Your task to perform on an android device: What is the news today? Image 0: 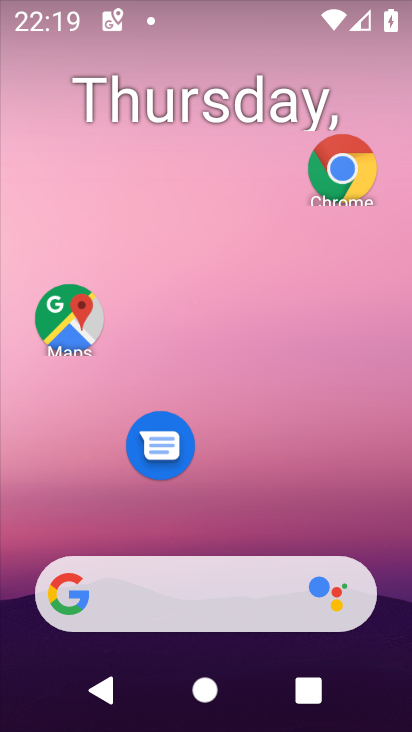
Step 0: drag from (207, 504) to (250, 85)
Your task to perform on an android device: What is the news today? Image 1: 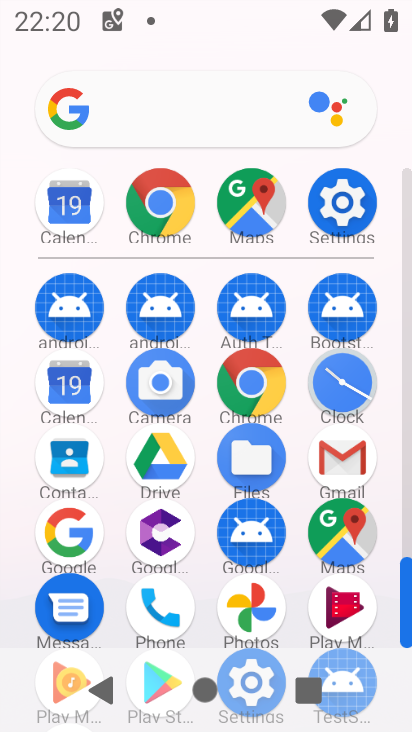
Step 1: click (212, 96)
Your task to perform on an android device: What is the news today? Image 2: 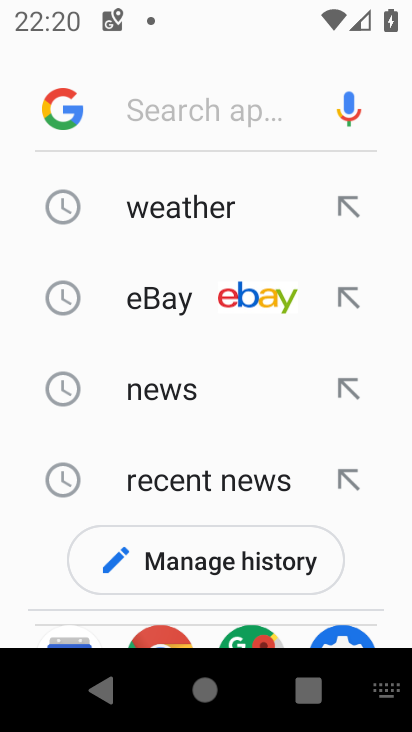
Step 2: drag from (222, 471) to (259, 74)
Your task to perform on an android device: What is the news today? Image 3: 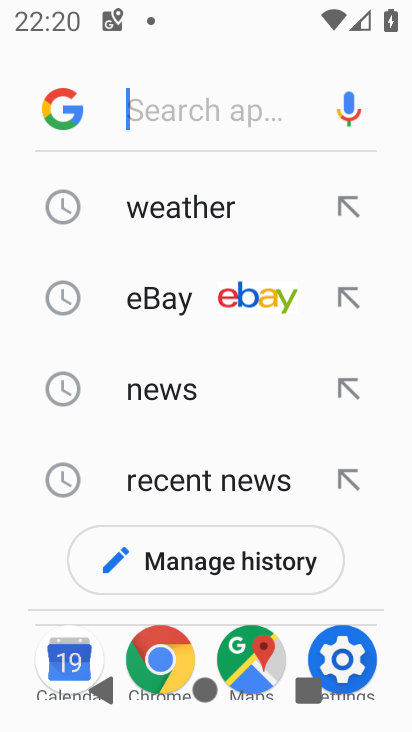
Step 3: type "news today?"
Your task to perform on an android device: What is the news today? Image 4: 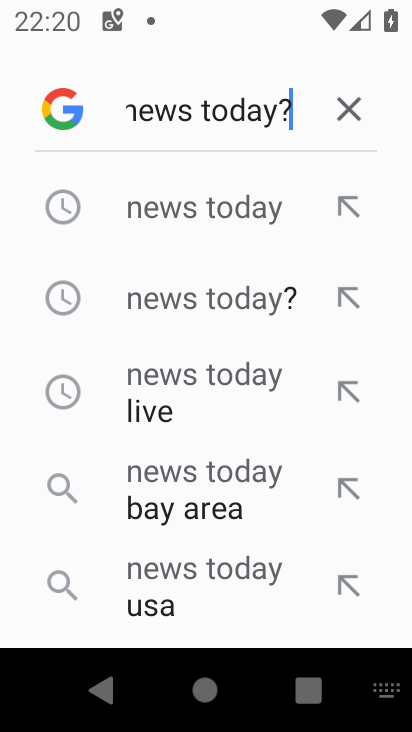
Step 4: type ""
Your task to perform on an android device: What is the news today? Image 5: 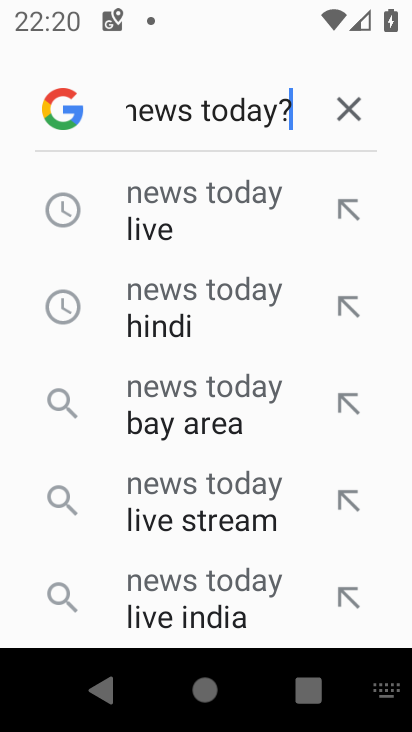
Step 5: click (175, 184)
Your task to perform on an android device: What is the news today? Image 6: 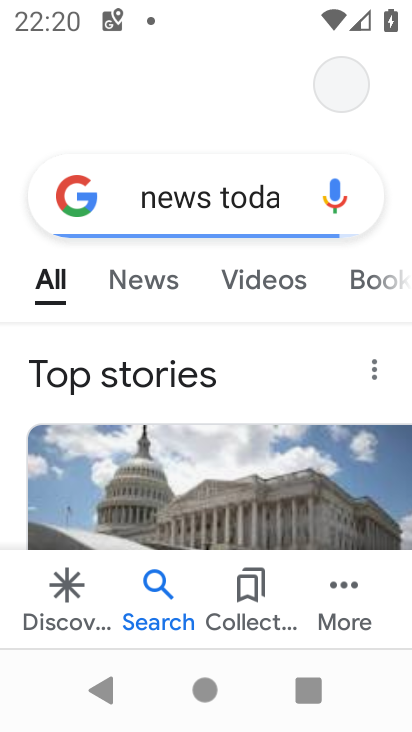
Step 6: task complete